Your task to perform on an android device: turn off smart reply in the gmail app Image 0: 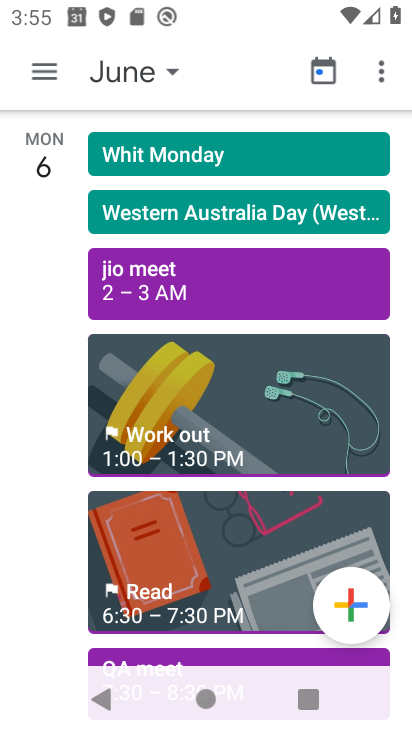
Step 0: press home button
Your task to perform on an android device: turn off smart reply in the gmail app Image 1: 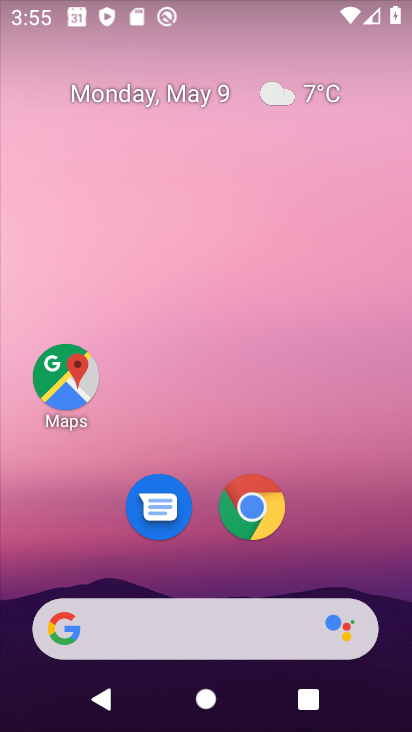
Step 1: drag from (252, 662) to (373, 91)
Your task to perform on an android device: turn off smart reply in the gmail app Image 2: 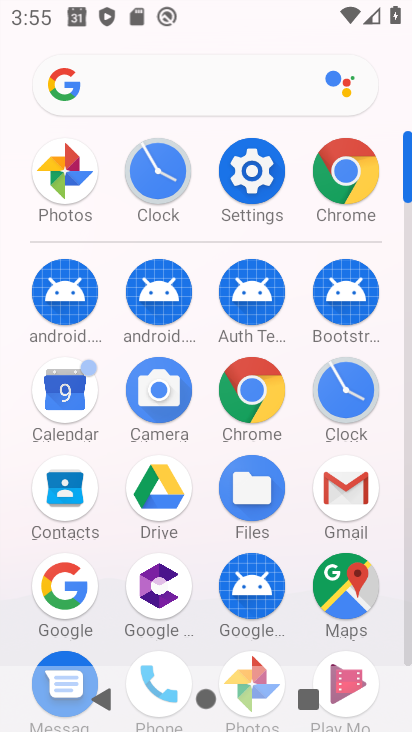
Step 2: click (325, 473)
Your task to perform on an android device: turn off smart reply in the gmail app Image 3: 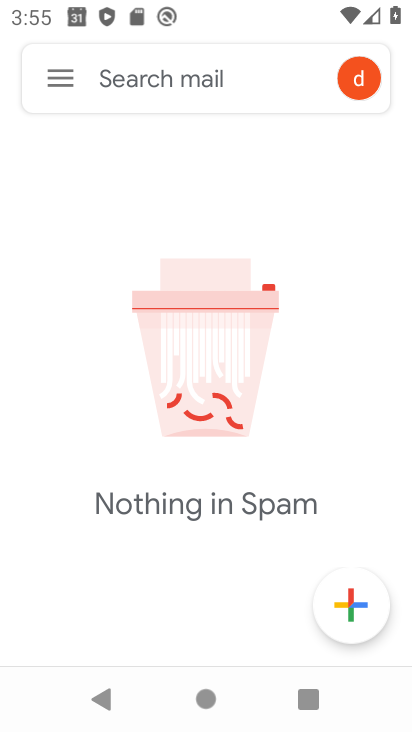
Step 3: click (40, 69)
Your task to perform on an android device: turn off smart reply in the gmail app Image 4: 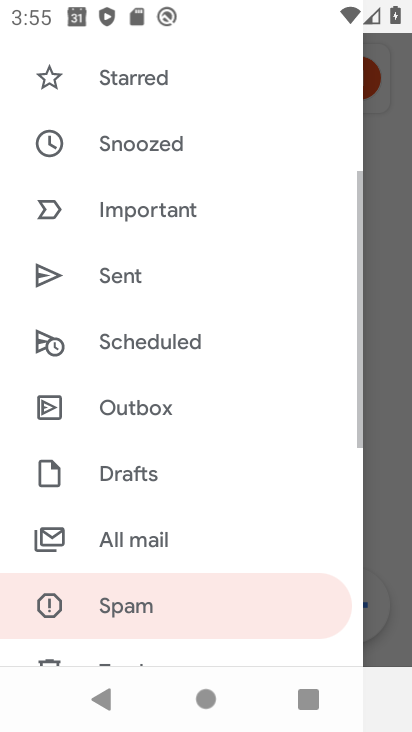
Step 4: drag from (185, 568) to (246, 166)
Your task to perform on an android device: turn off smart reply in the gmail app Image 5: 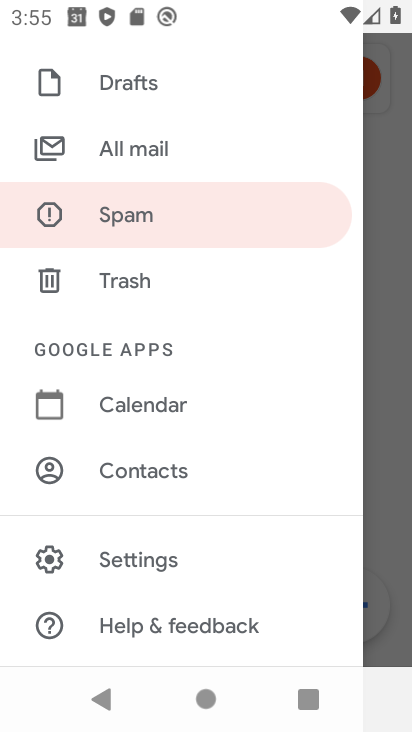
Step 5: click (161, 556)
Your task to perform on an android device: turn off smart reply in the gmail app Image 6: 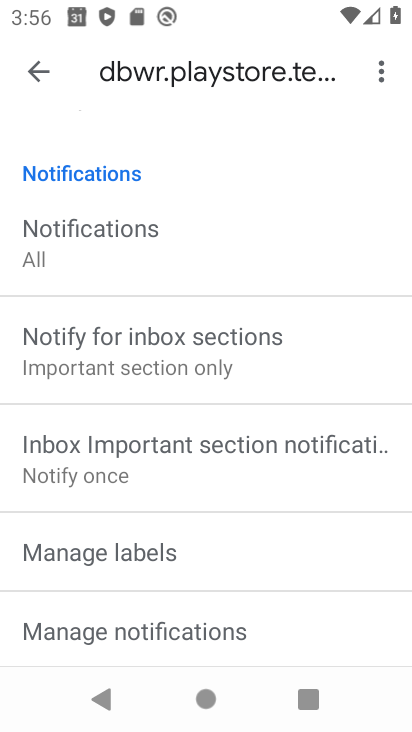
Step 6: drag from (168, 521) to (214, 364)
Your task to perform on an android device: turn off smart reply in the gmail app Image 7: 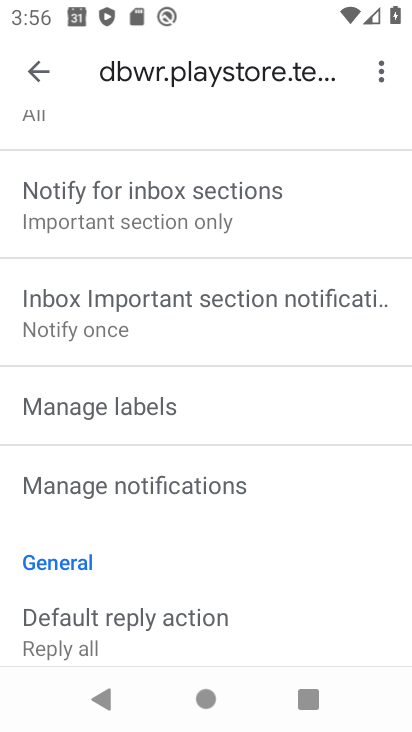
Step 7: drag from (183, 561) to (321, 201)
Your task to perform on an android device: turn off smart reply in the gmail app Image 8: 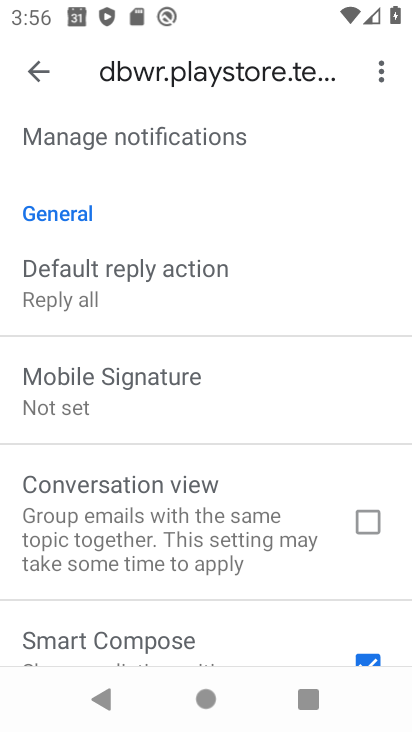
Step 8: drag from (228, 557) to (286, 352)
Your task to perform on an android device: turn off smart reply in the gmail app Image 9: 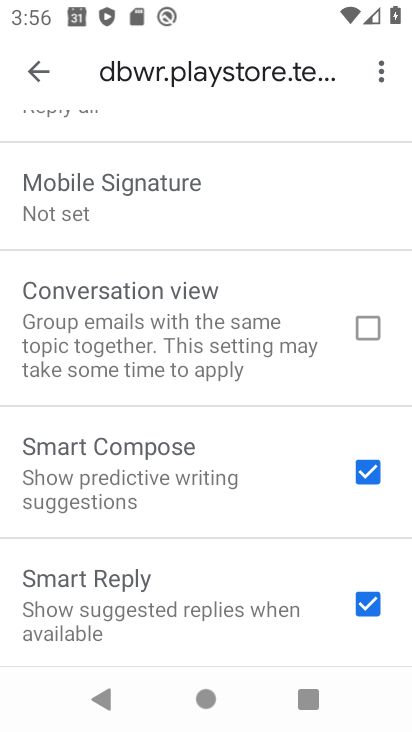
Step 9: click (354, 607)
Your task to perform on an android device: turn off smart reply in the gmail app Image 10: 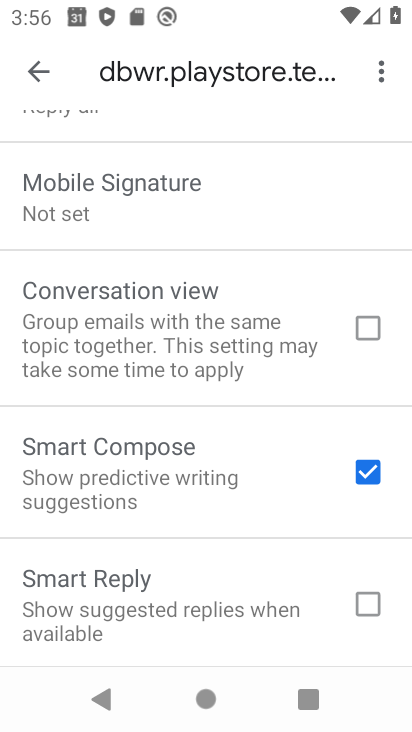
Step 10: task complete